Your task to perform on an android device: Search for sushi restaurants on Maps Image 0: 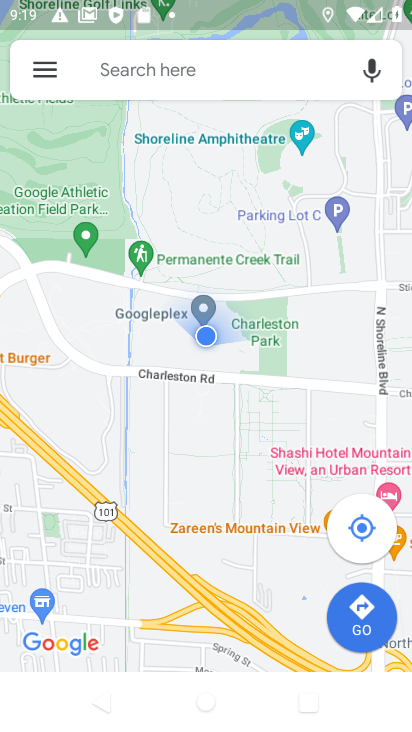
Step 0: click (114, 77)
Your task to perform on an android device: Search for sushi restaurants on Maps Image 1: 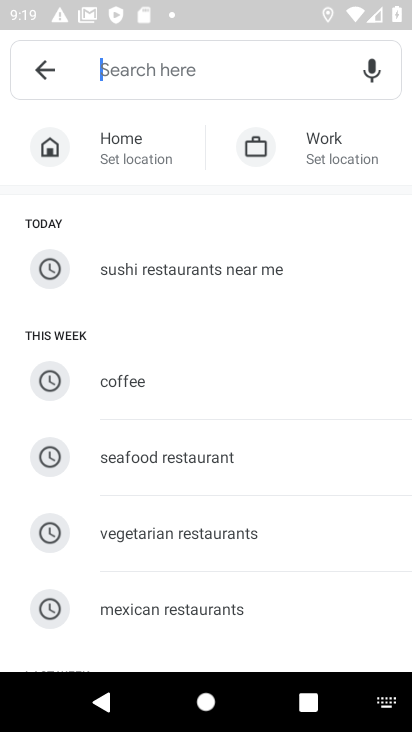
Step 1: click (157, 268)
Your task to perform on an android device: Search for sushi restaurants on Maps Image 2: 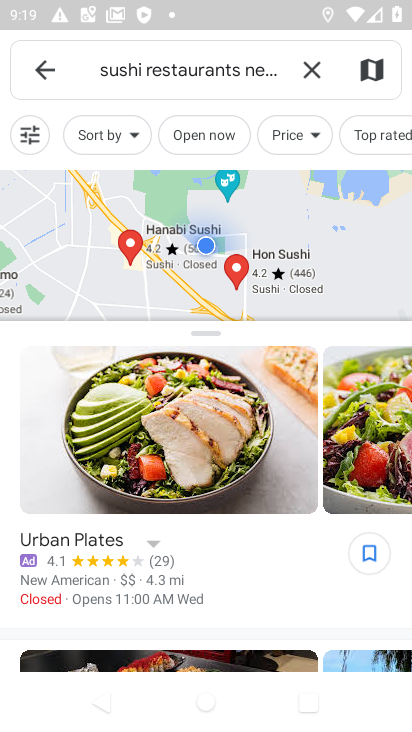
Step 2: task complete